Your task to perform on an android device: change the clock display to digital Image 0: 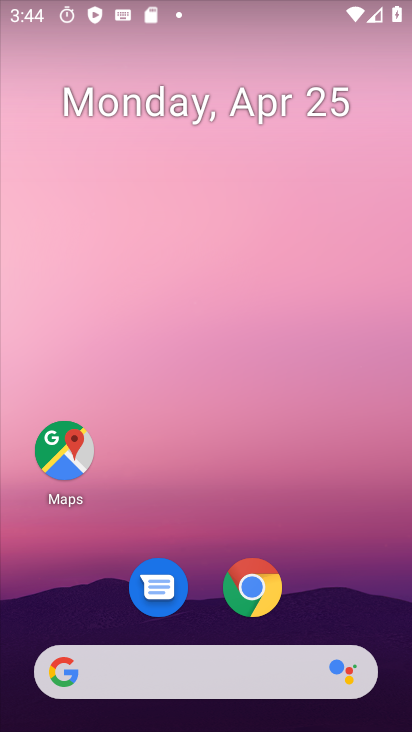
Step 0: drag from (338, 493) to (289, 158)
Your task to perform on an android device: change the clock display to digital Image 1: 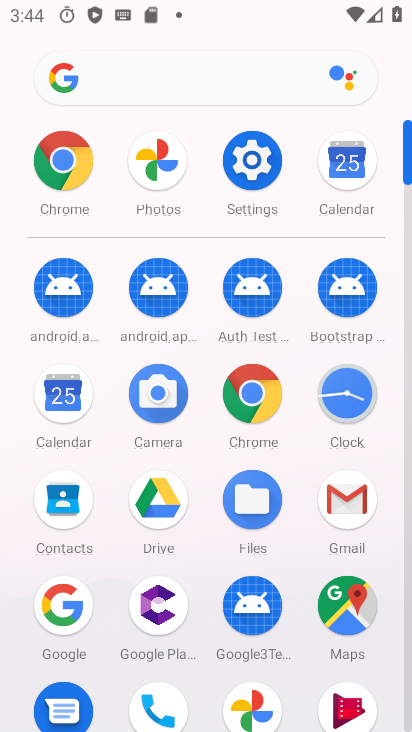
Step 1: click (353, 387)
Your task to perform on an android device: change the clock display to digital Image 2: 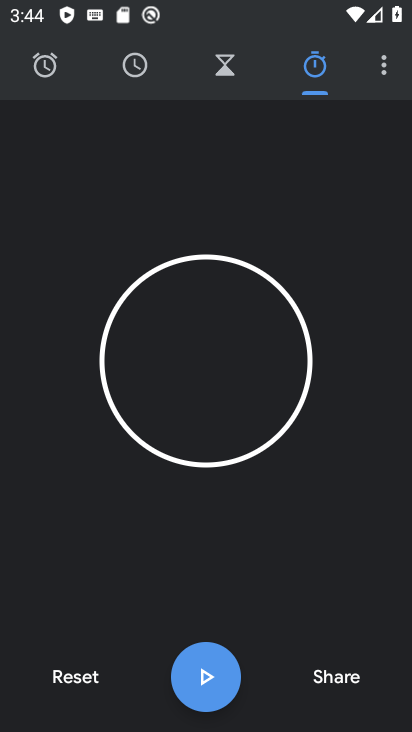
Step 2: drag from (390, 71) to (304, 190)
Your task to perform on an android device: change the clock display to digital Image 3: 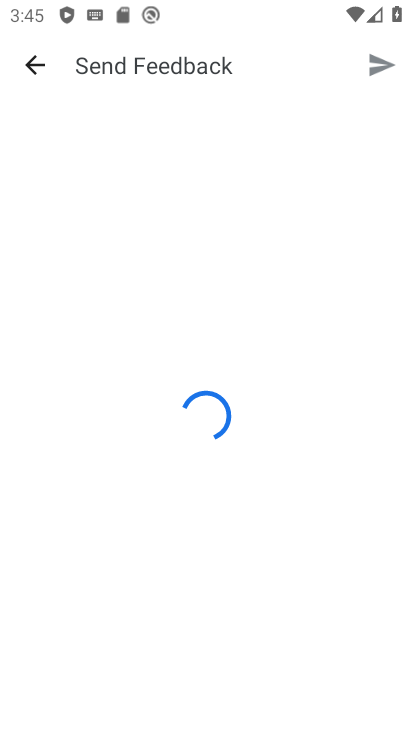
Step 3: click (52, 55)
Your task to perform on an android device: change the clock display to digital Image 4: 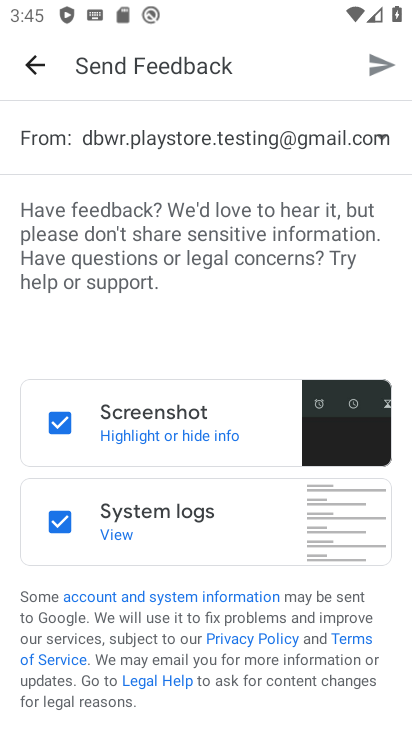
Step 4: click (25, 57)
Your task to perform on an android device: change the clock display to digital Image 5: 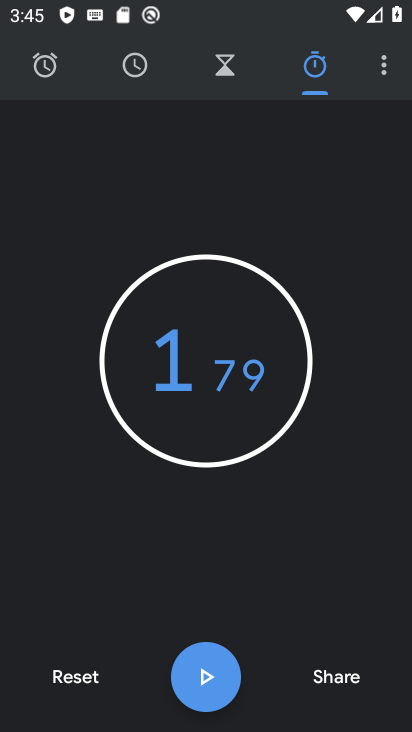
Step 5: click (386, 63)
Your task to perform on an android device: change the clock display to digital Image 6: 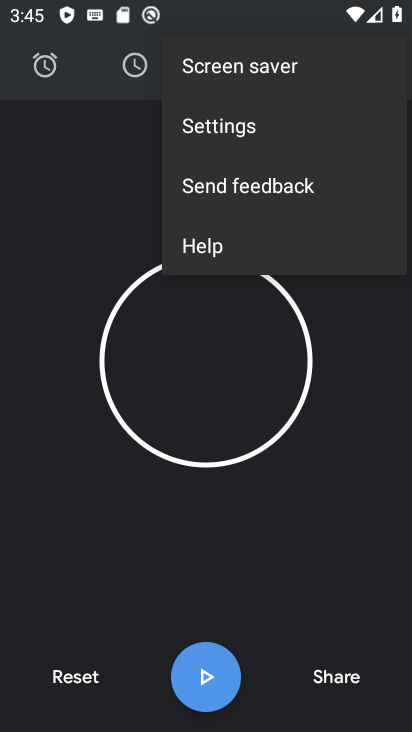
Step 6: click (263, 136)
Your task to perform on an android device: change the clock display to digital Image 7: 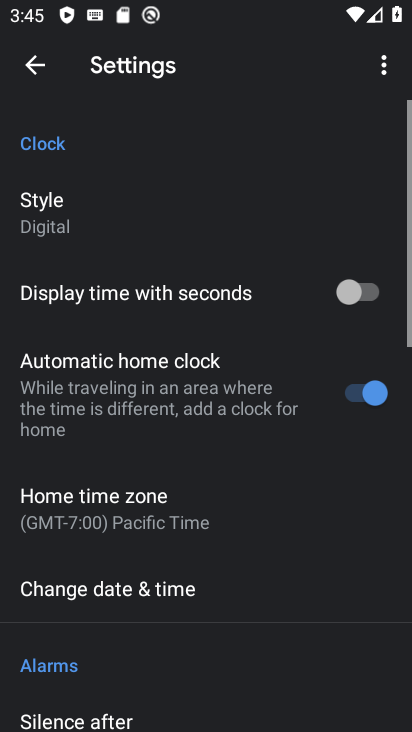
Step 7: click (72, 220)
Your task to perform on an android device: change the clock display to digital Image 8: 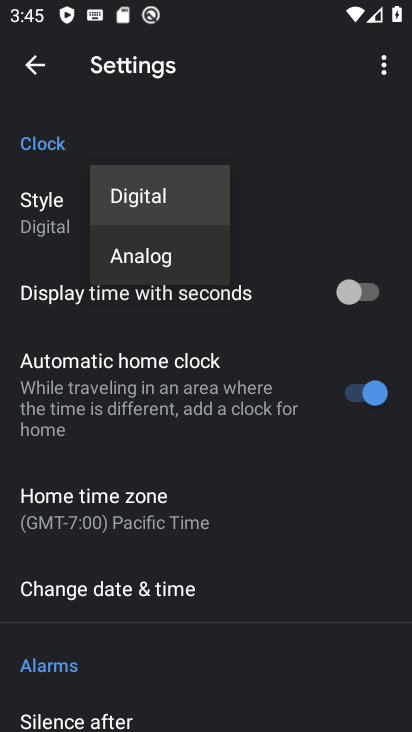
Step 8: task complete